Your task to perform on an android device: Clear the cart on bestbuy.com. Image 0: 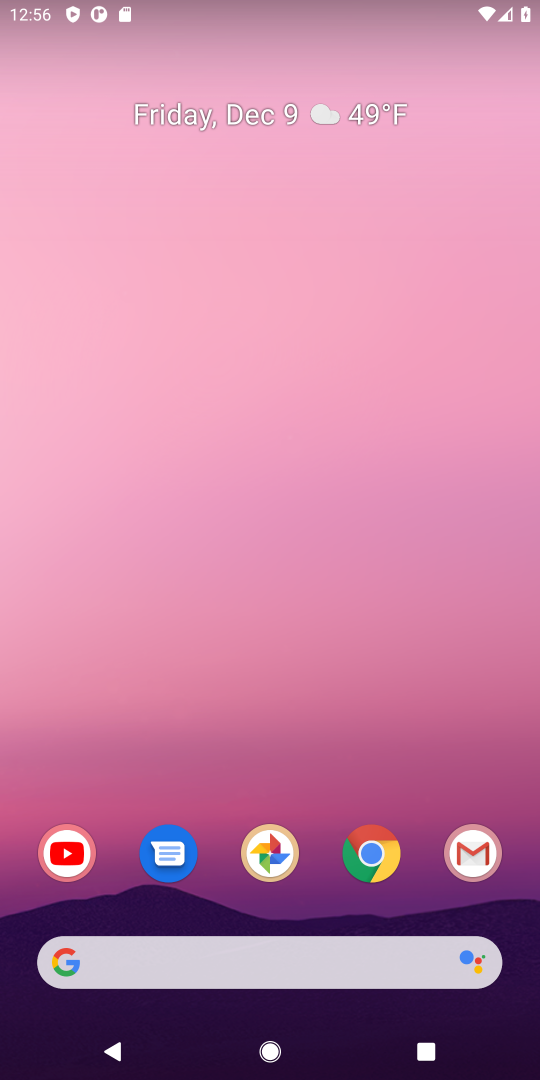
Step 0: drag from (291, 913) to (433, 149)
Your task to perform on an android device: Clear the cart on bestbuy.com. Image 1: 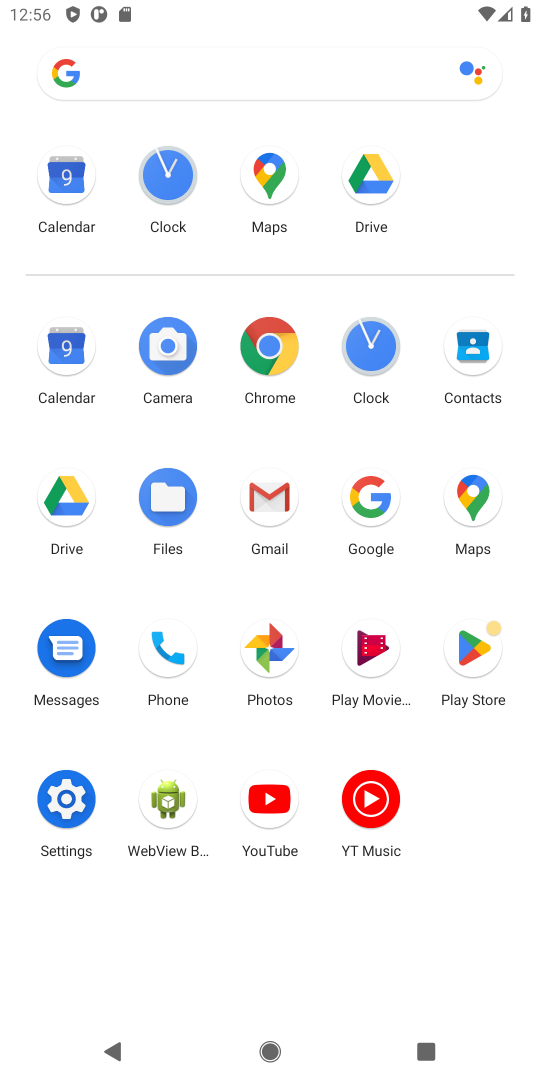
Step 1: click (357, 481)
Your task to perform on an android device: Clear the cart on bestbuy.com. Image 2: 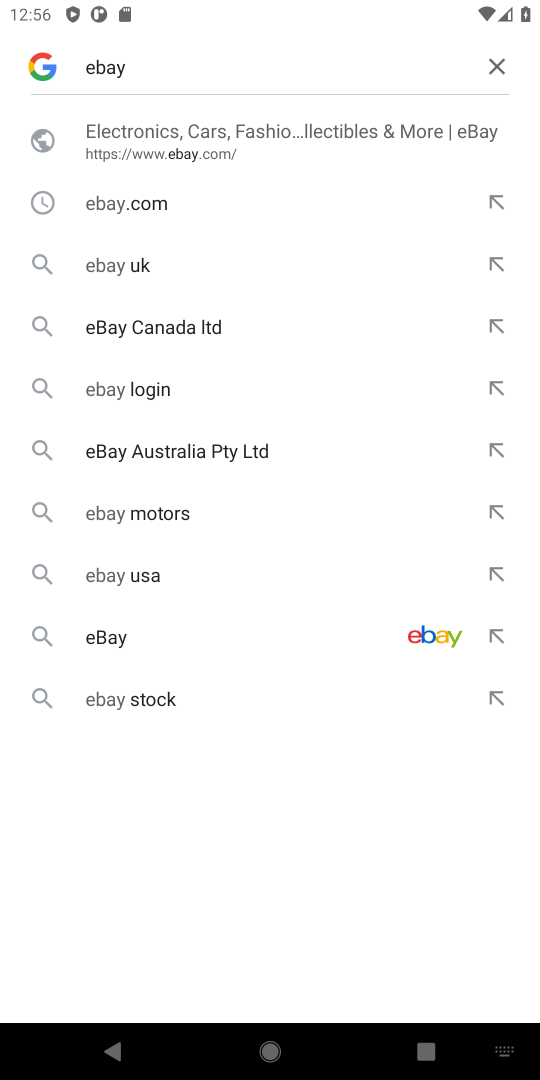
Step 2: click (125, 68)
Your task to perform on an android device: Clear the cart on bestbuy.com. Image 3: 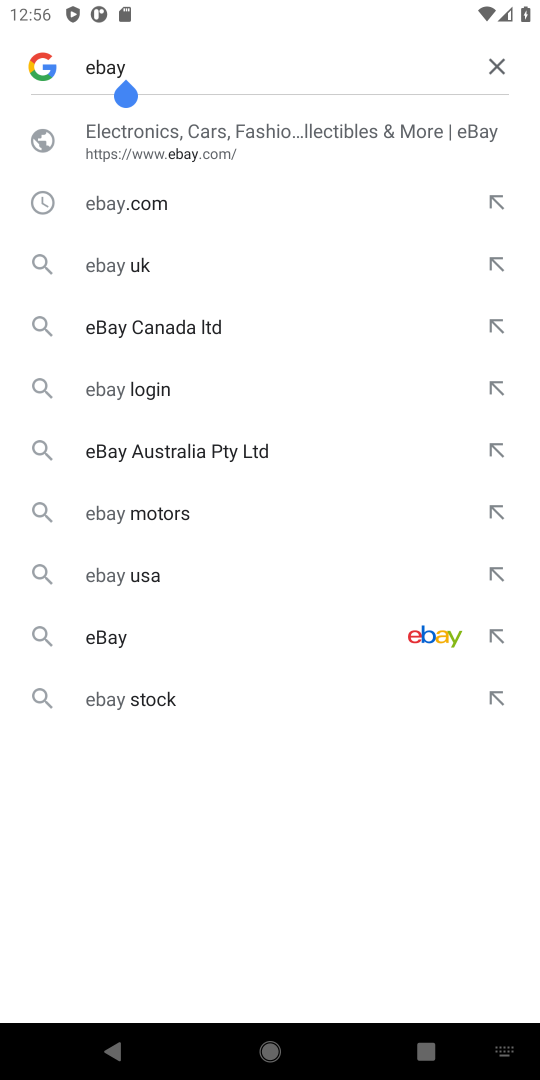
Step 3: click (502, 65)
Your task to perform on an android device: Clear the cart on bestbuy.com. Image 4: 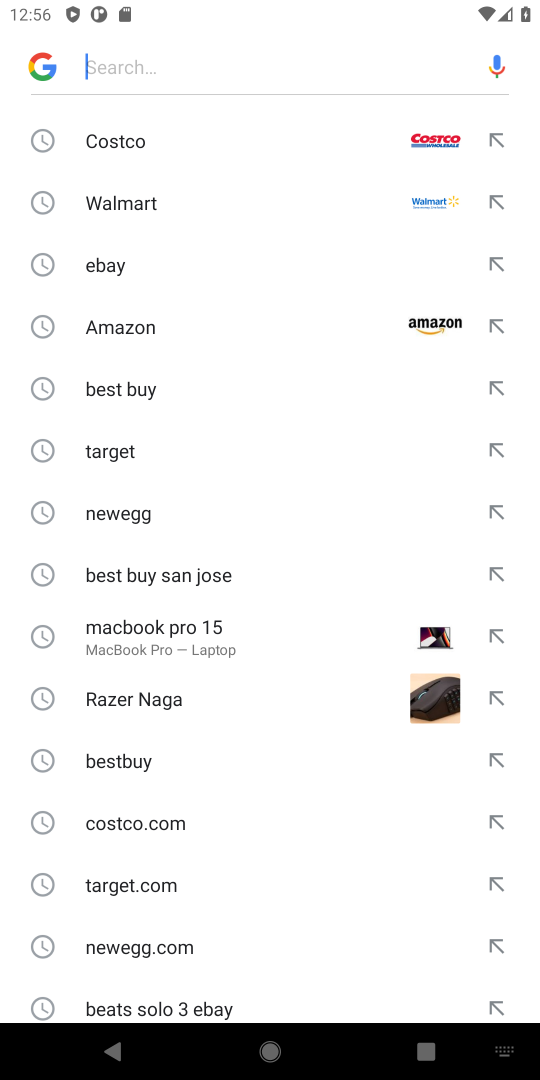
Step 4: click (117, 391)
Your task to perform on an android device: Clear the cart on bestbuy.com. Image 5: 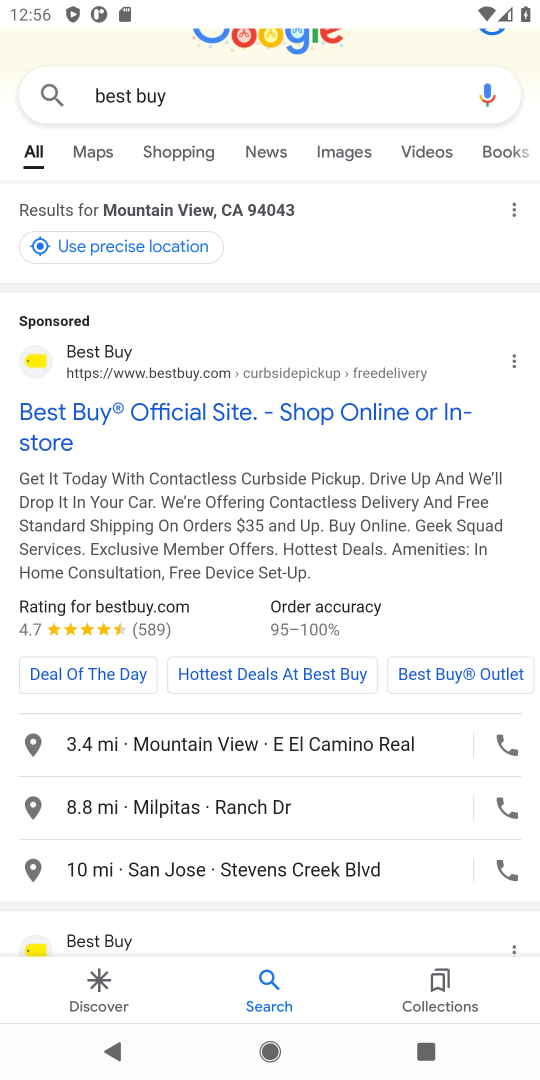
Step 5: click (120, 407)
Your task to perform on an android device: Clear the cart on bestbuy.com. Image 6: 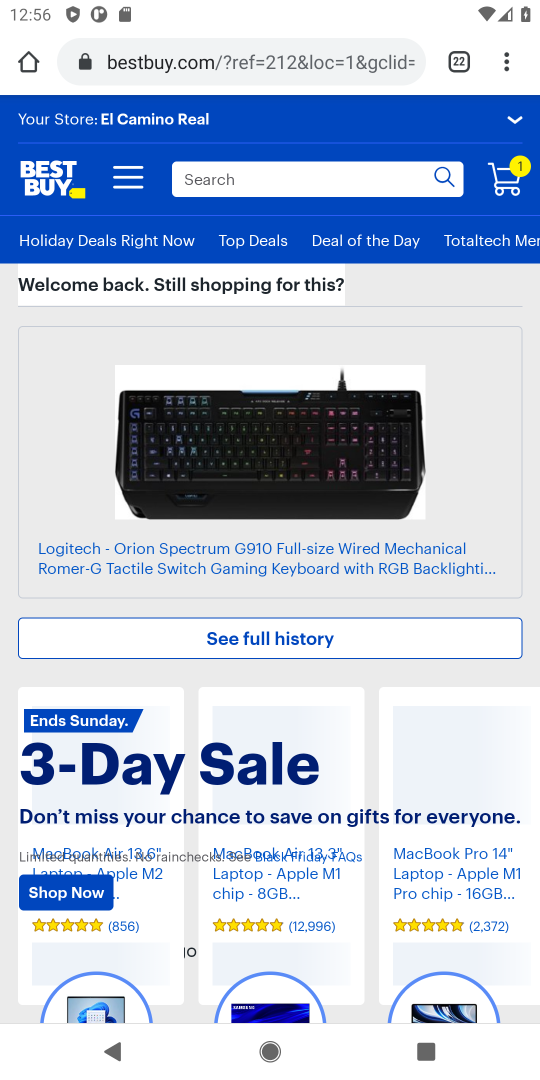
Step 6: click (501, 169)
Your task to perform on an android device: Clear the cart on bestbuy.com. Image 7: 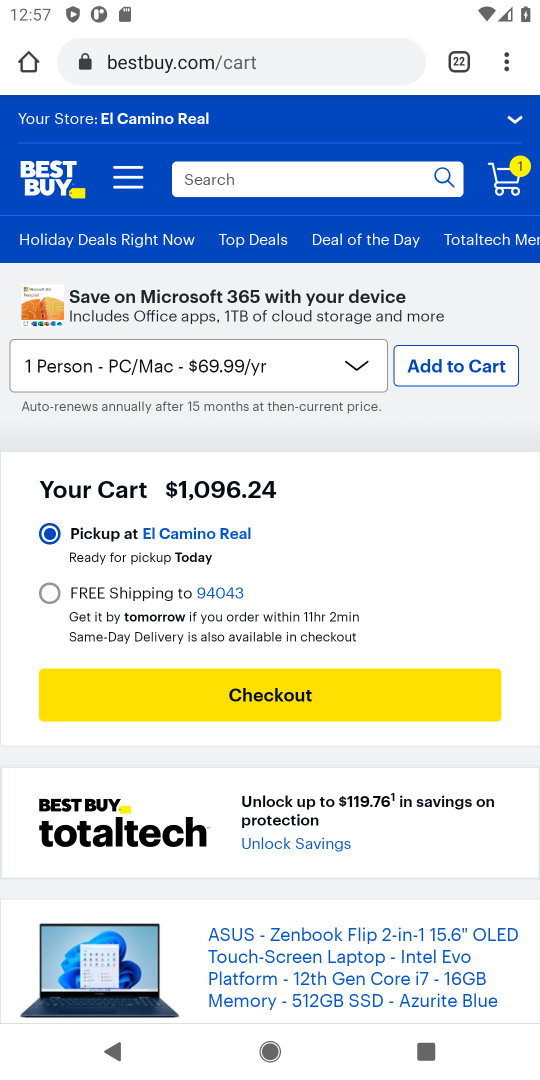
Step 7: drag from (325, 759) to (306, 397)
Your task to perform on an android device: Clear the cart on bestbuy.com. Image 8: 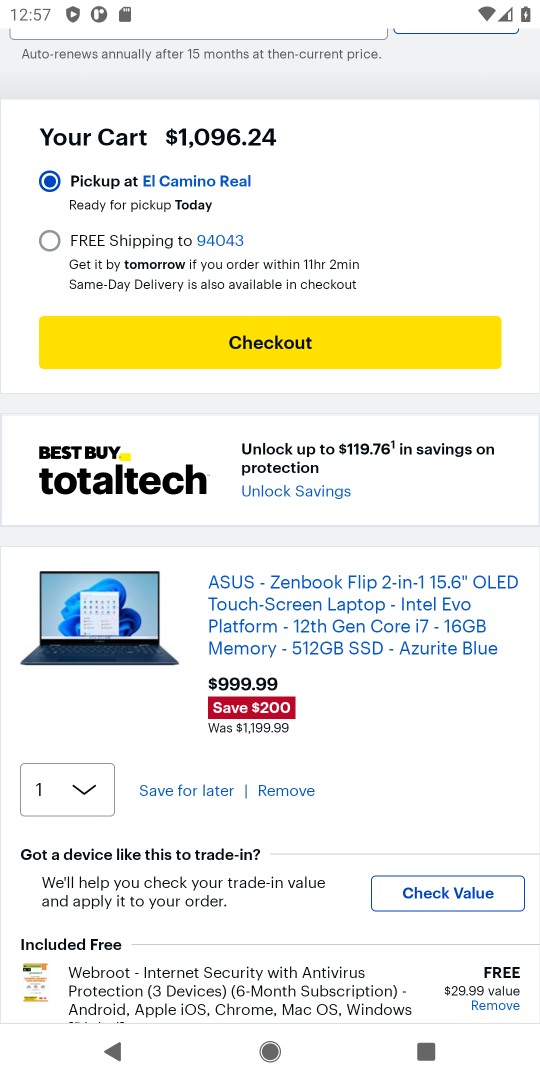
Step 8: click (271, 786)
Your task to perform on an android device: Clear the cart on bestbuy.com. Image 9: 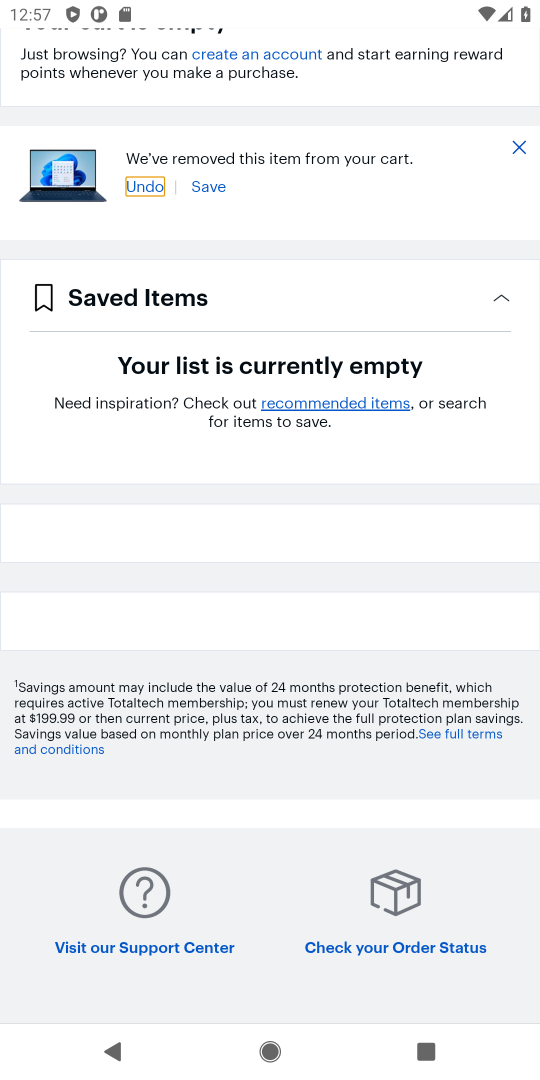
Step 9: task complete